Your task to perform on an android device: set an alarm Image 0: 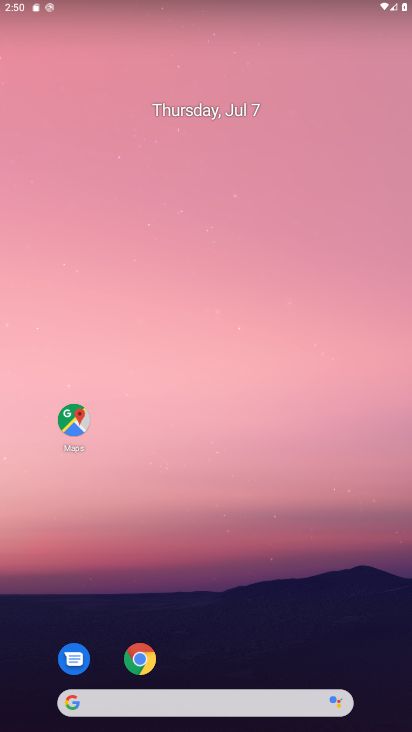
Step 0: drag from (205, 694) to (209, 279)
Your task to perform on an android device: set an alarm Image 1: 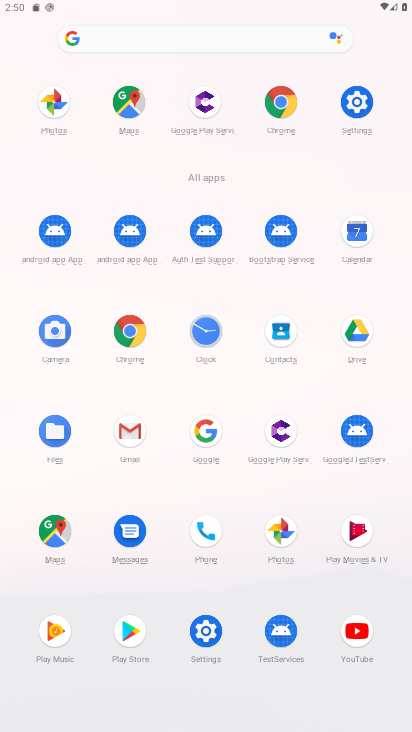
Step 1: click (205, 331)
Your task to perform on an android device: set an alarm Image 2: 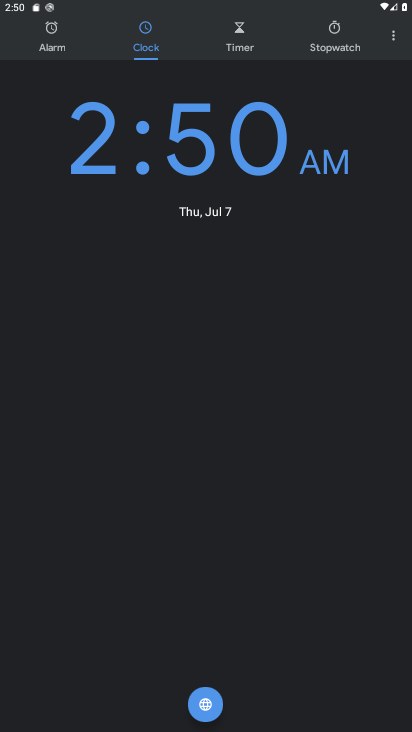
Step 2: click (48, 46)
Your task to perform on an android device: set an alarm Image 3: 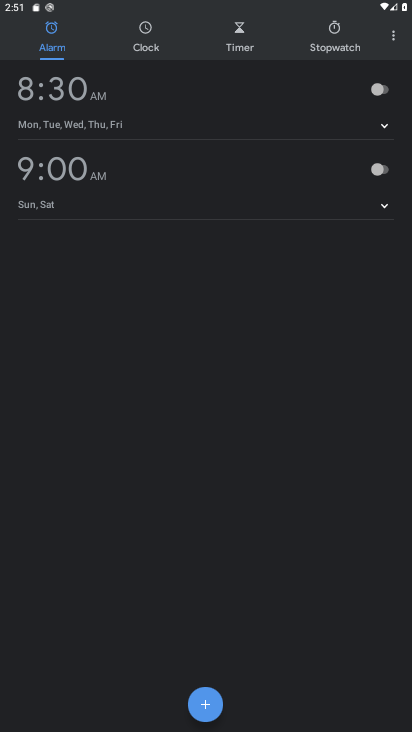
Step 3: click (200, 717)
Your task to perform on an android device: set an alarm Image 4: 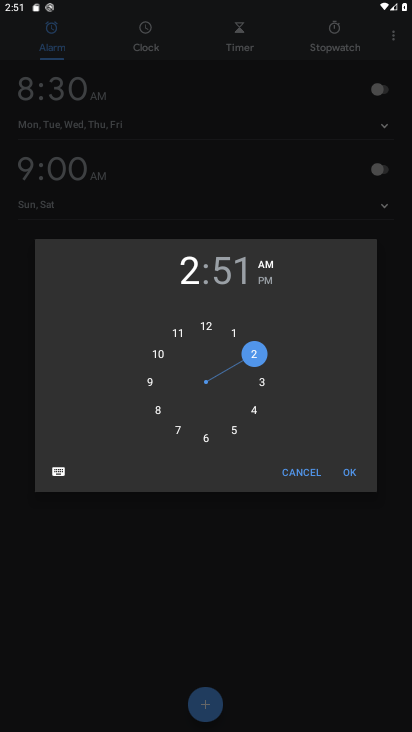
Step 4: click (339, 470)
Your task to perform on an android device: set an alarm Image 5: 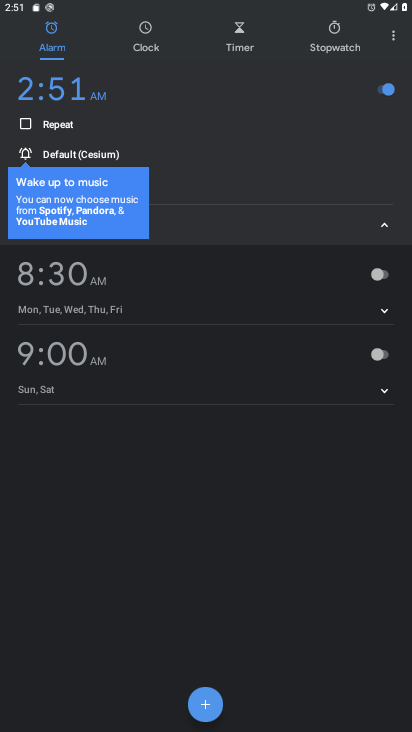
Step 5: task complete